Your task to perform on an android device: add a contact in the contacts app Image 0: 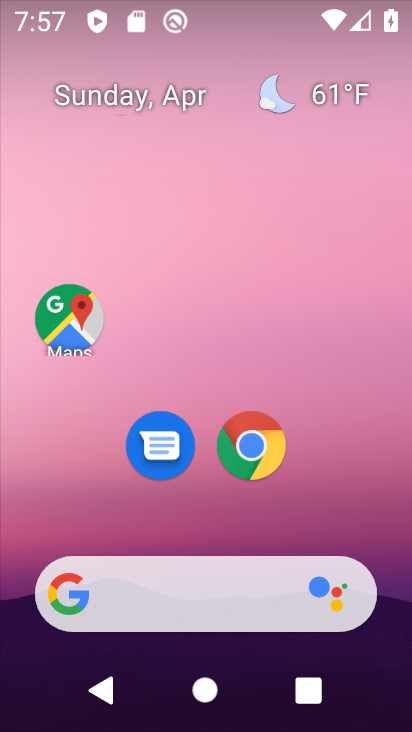
Step 0: drag from (192, 527) to (233, 148)
Your task to perform on an android device: add a contact in the contacts app Image 1: 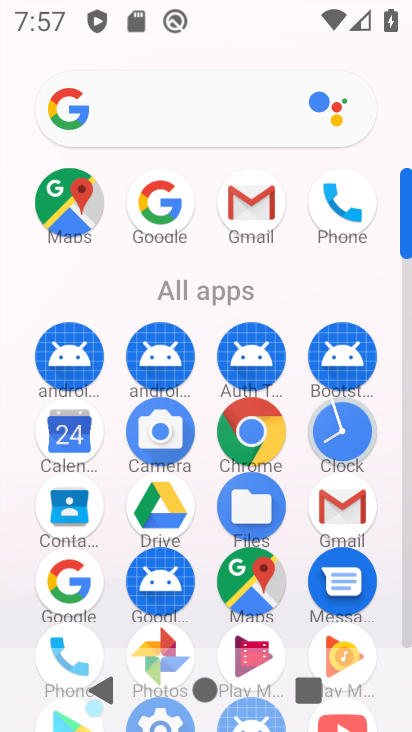
Step 1: click (59, 512)
Your task to perform on an android device: add a contact in the contacts app Image 2: 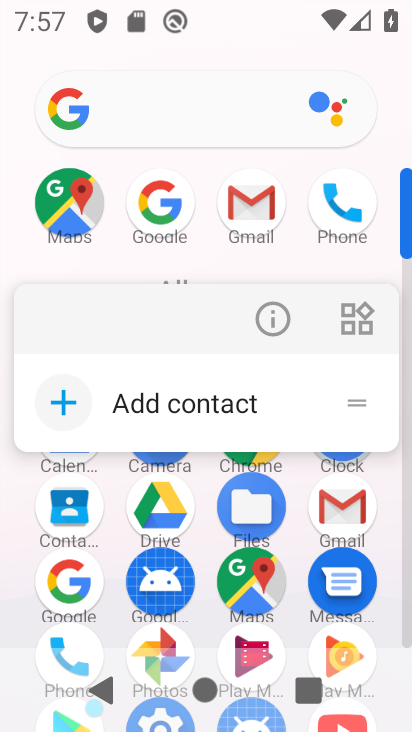
Step 2: click (68, 501)
Your task to perform on an android device: add a contact in the contacts app Image 3: 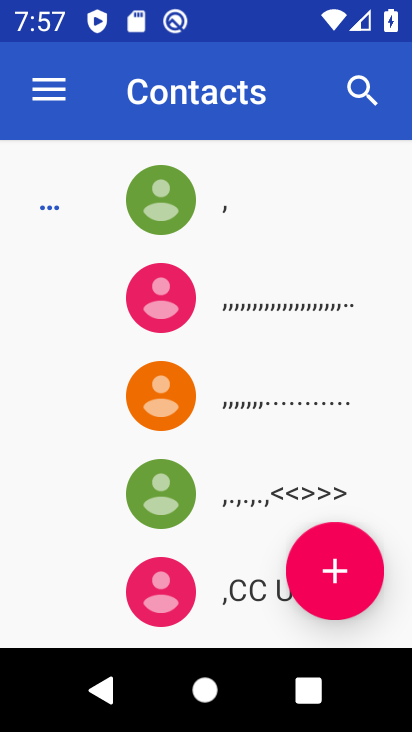
Step 3: click (351, 578)
Your task to perform on an android device: add a contact in the contacts app Image 4: 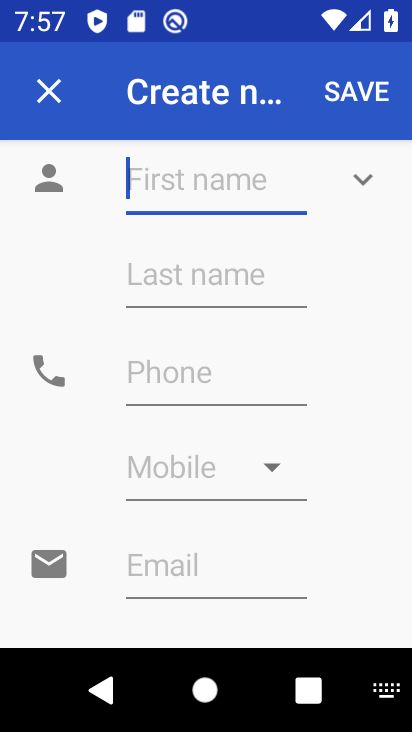
Step 4: type "fghtgh"
Your task to perform on an android device: add a contact in the contacts app Image 5: 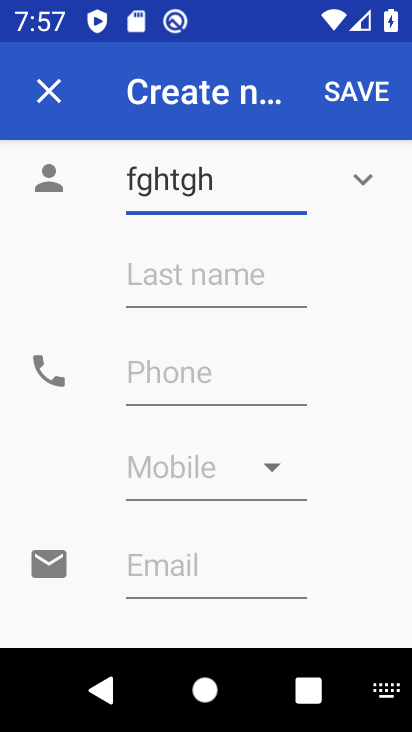
Step 5: click (169, 368)
Your task to perform on an android device: add a contact in the contacts app Image 6: 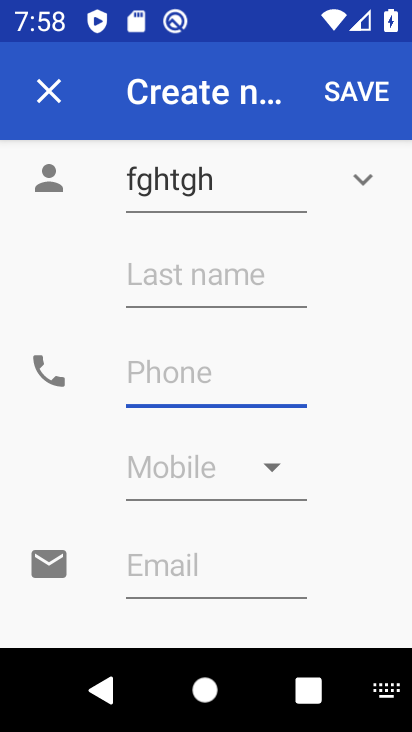
Step 6: type "9769576876"
Your task to perform on an android device: add a contact in the contacts app Image 7: 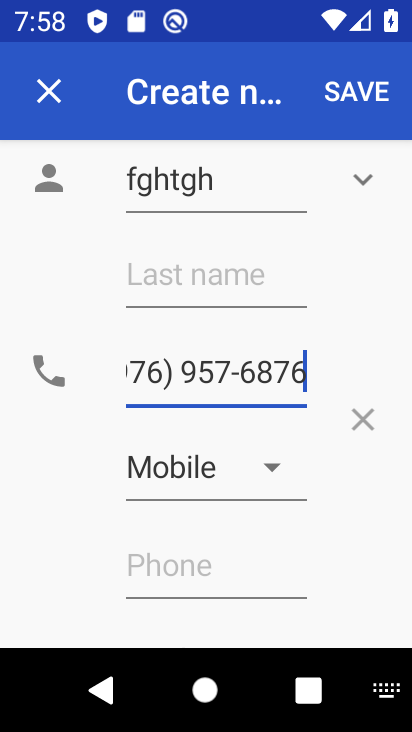
Step 7: click (338, 87)
Your task to perform on an android device: add a contact in the contacts app Image 8: 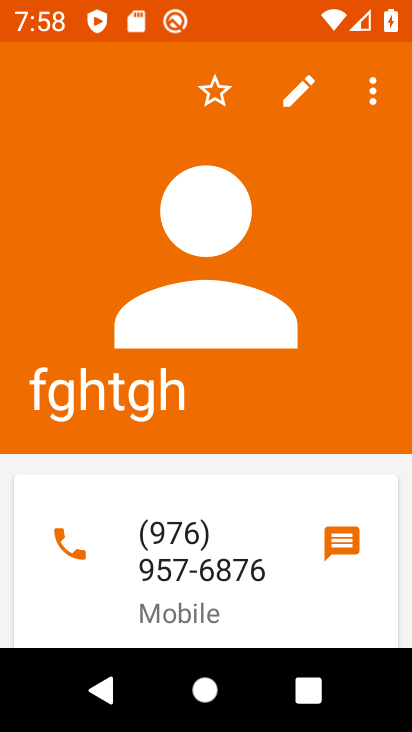
Step 8: task complete